Your task to perform on an android device: star an email in the gmail app Image 0: 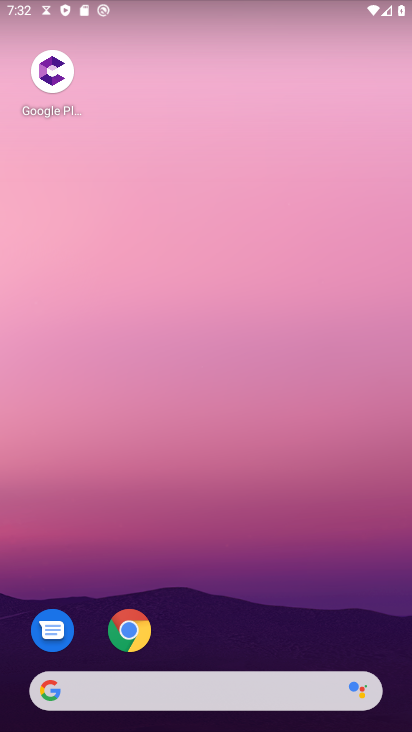
Step 0: drag from (238, 642) to (219, 313)
Your task to perform on an android device: star an email in the gmail app Image 1: 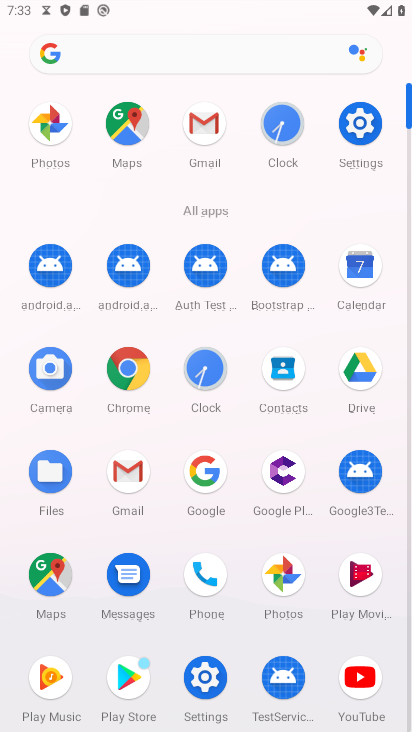
Step 1: click (133, 475)
Your task to perform on an android device: star an email in the gmail app Image 2: 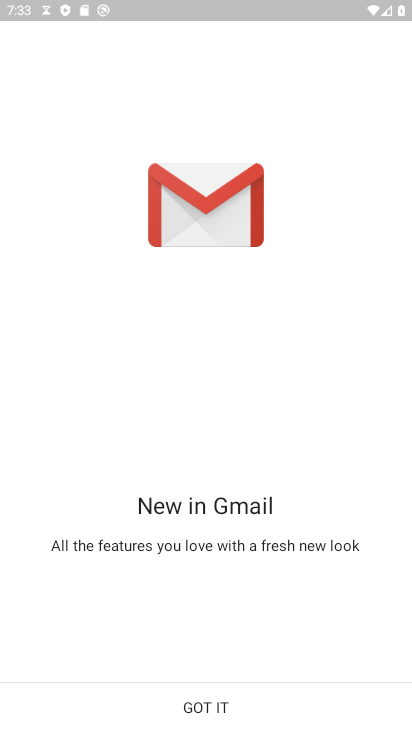
Step 2: click (218, 712)
Your task to perform on an android device: star an email in the gmail app Image 3: 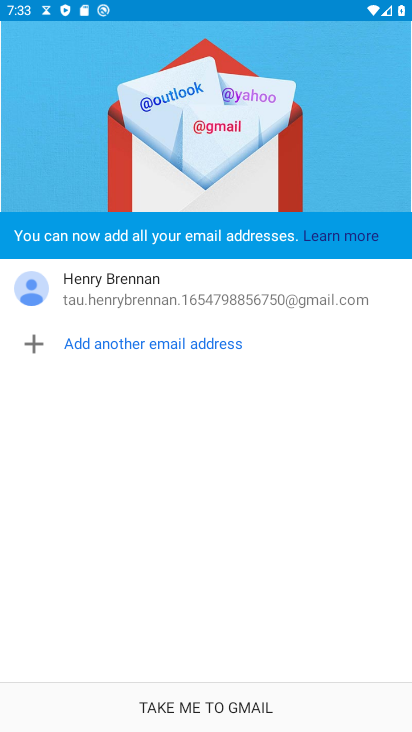
Step 3: click (218, 712)
Your task to perform on an android device: star an email in the gmail app Image 4: 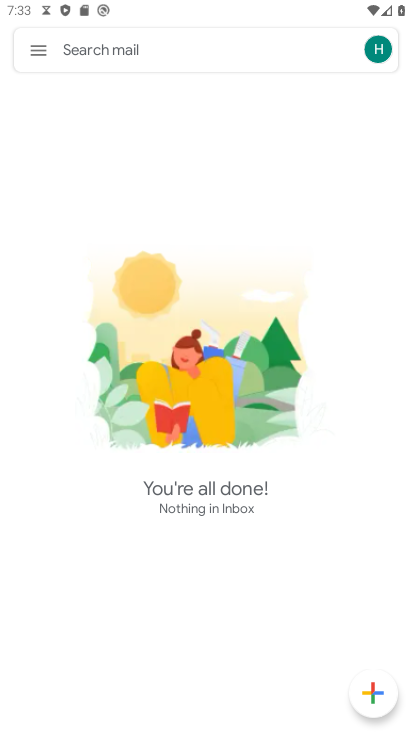
Step 4: task complete